Your task to perform on an android device: check battery use Image 0: 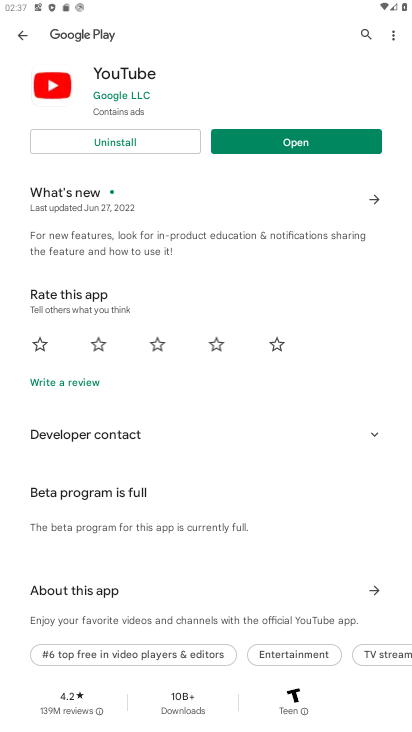
Step 0: press back button
Your task to perform on an android device: check battery use Image 1: 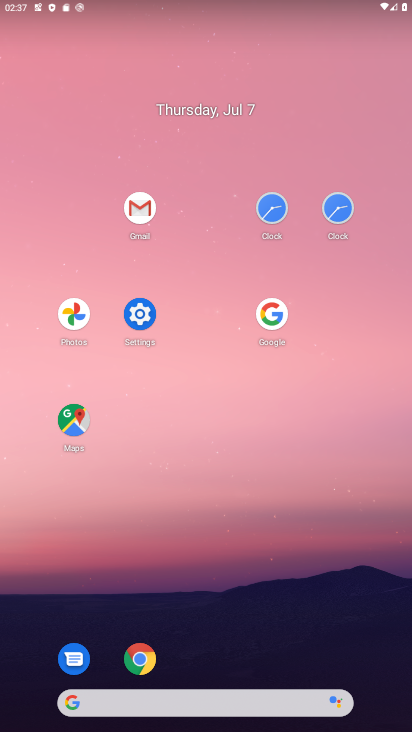
Step 1: click (145, 315)
Your task to perform on an android device: check battery use Image 2: 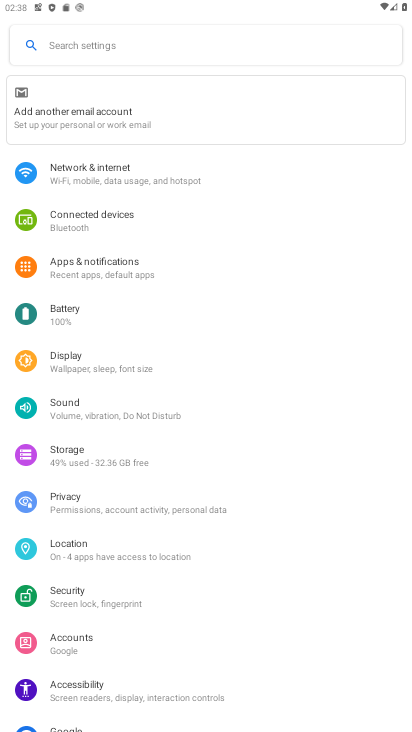
Step 2: click (133, 314)
Your task to perform on an android device: check battery use Image 3: 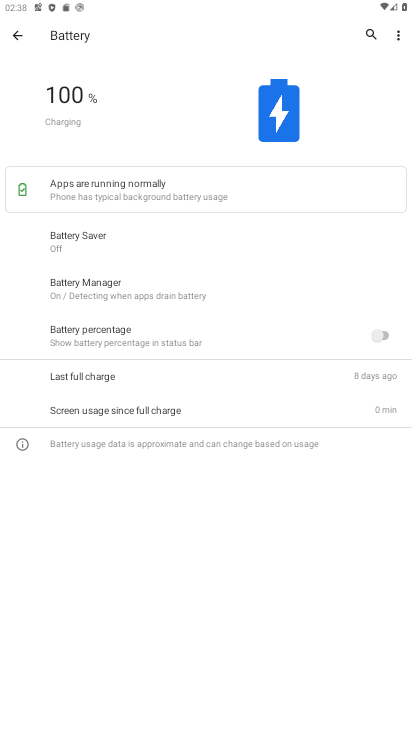
Step 3: click (401, 39)
Your task to perform on an android device: check battery use Image 4: 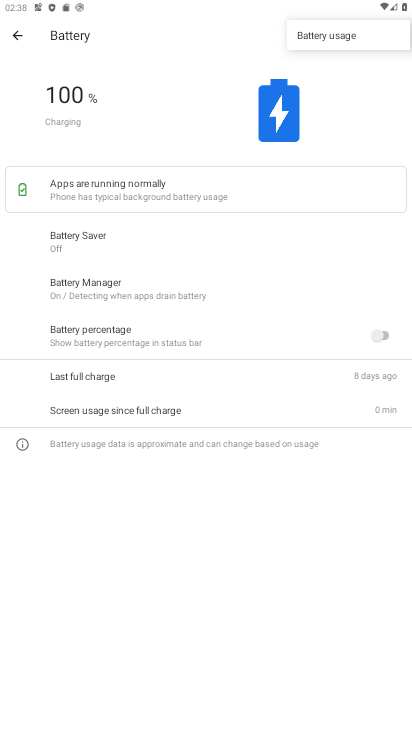
Step 4: click (347, 45)
Your task to perform on an android device: check battery use Image 5: 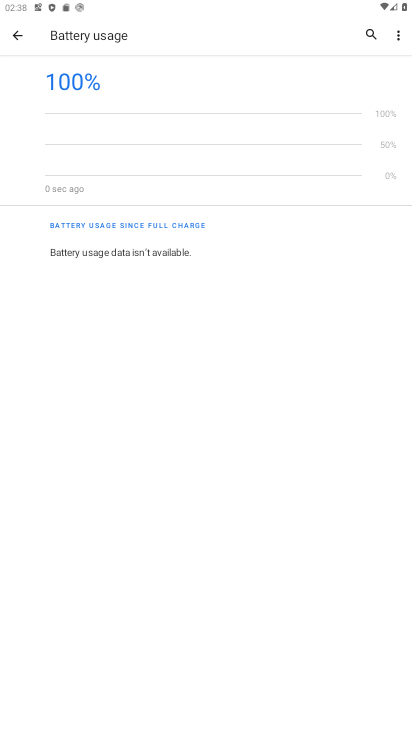
Step 5: task complete